Your task to perform on an android device: Go to Reddit.com Image 0: 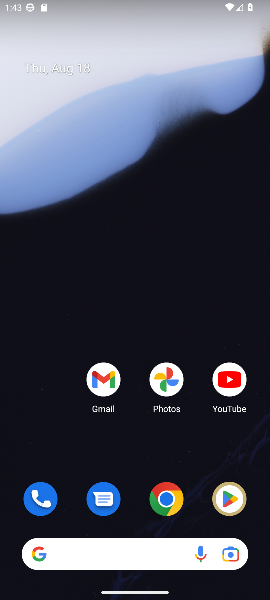
Step 0: click (167, 500)
Your task to perform on an android device: Go to Reddit.com Image 1: 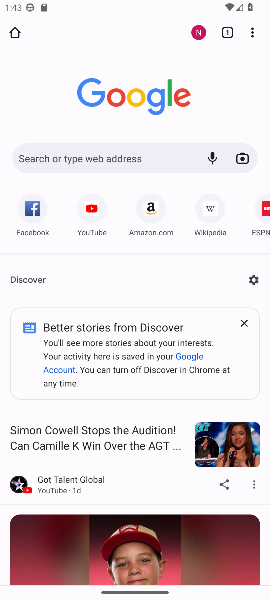
Step 1: click (135, 154)
Your task to perform on an android device: Go to Reddit.com Image 2: 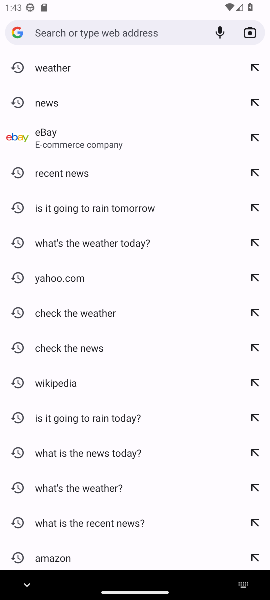
Step 2: type "reddit.com"
Your task to perform on an android device: Go to Reddit.com Image 3: 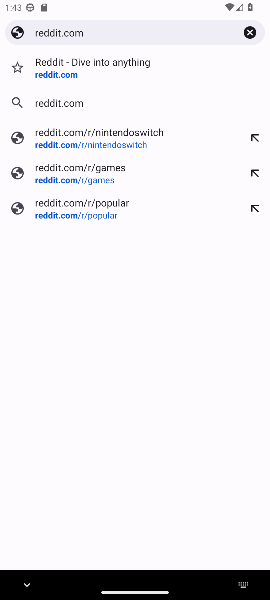
Step 3: click (61, 69)
Your task to perform on an android device: Go to Reddit.com Image 4: 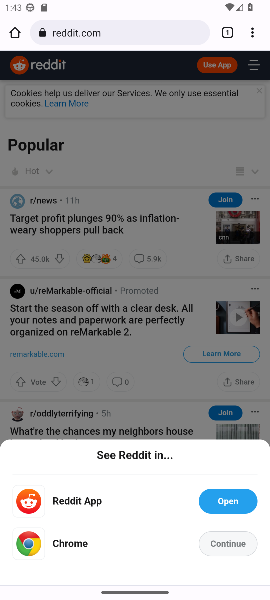
Step 4: click (223, 541)
Your task to perform on an android device: Go to Reddit.com Image 5: 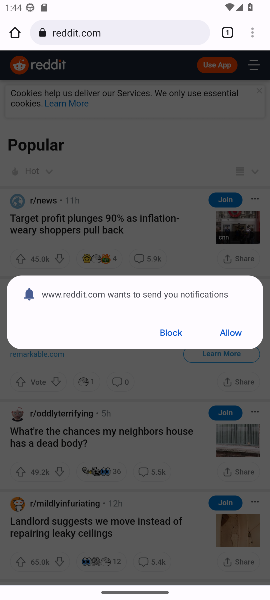
Step 5: click (226, 331)
Your task to perform on an android device: Go to Reddit.com Image 6: 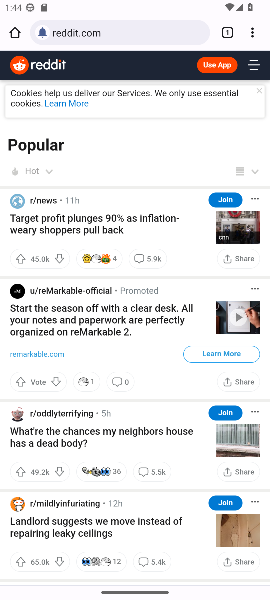
Step 6: task complete